Your task to perform on an android device: What's the weather? Image 0: 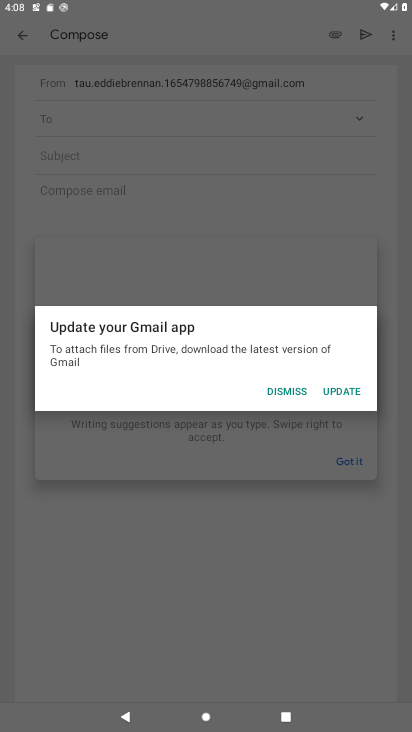
Step 0: press home button
Your task to perform on an android device: What's the weather? Image 1: 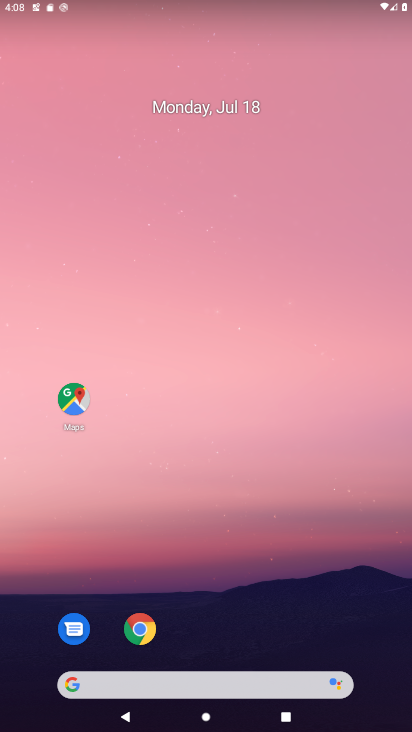
Step 1: drag from (190, 624) to (213, 125)
Your task to perform on an android device: What's the weather? Image 2: 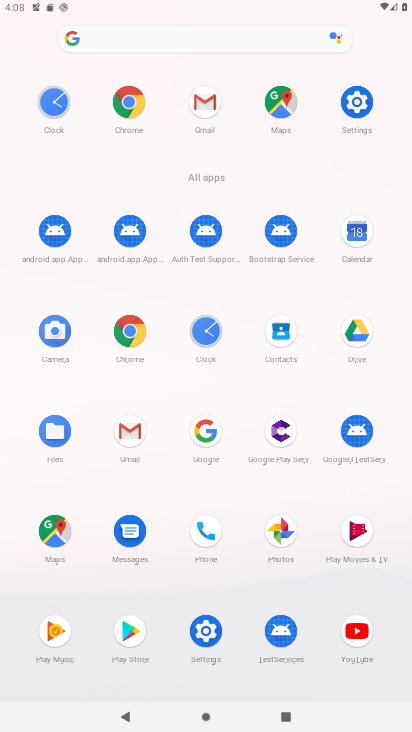
Step 2: click (191, 434)
Your task to perform on an android device: What's the weather? Image 3: 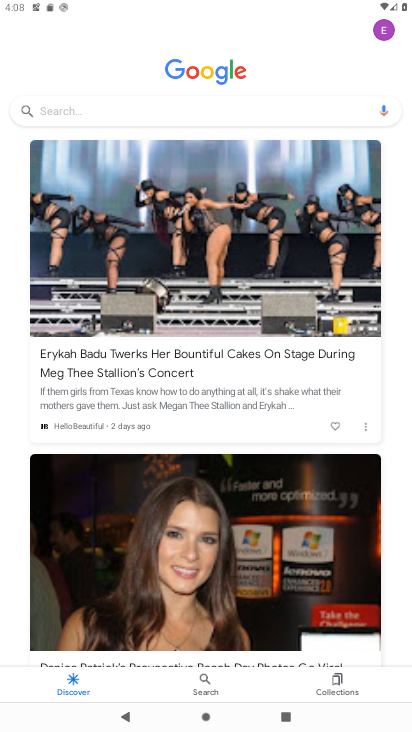
Step 3: click (97, 109)
Your task to perform on an android device: What's the weather? Image 4: 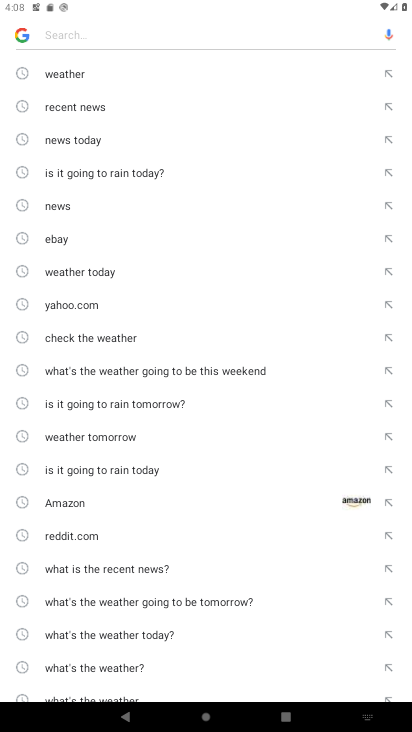
Step 4: click (90, 72)
Your task to perform on an android device: What's the weather? Image 5: 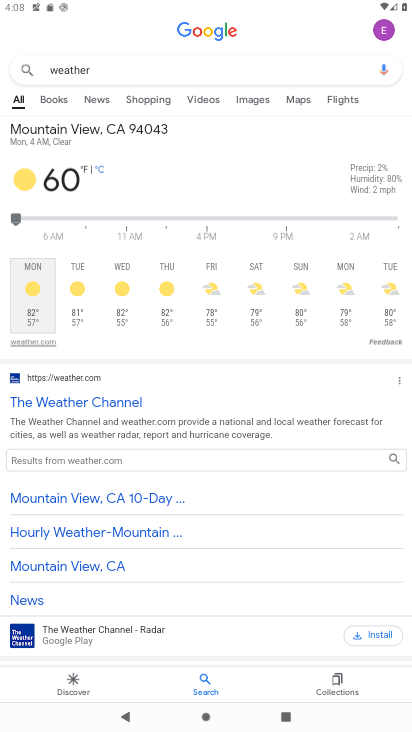
Step 5: task complete